Your task to perform on an android device: Go to internet settings Image 0: 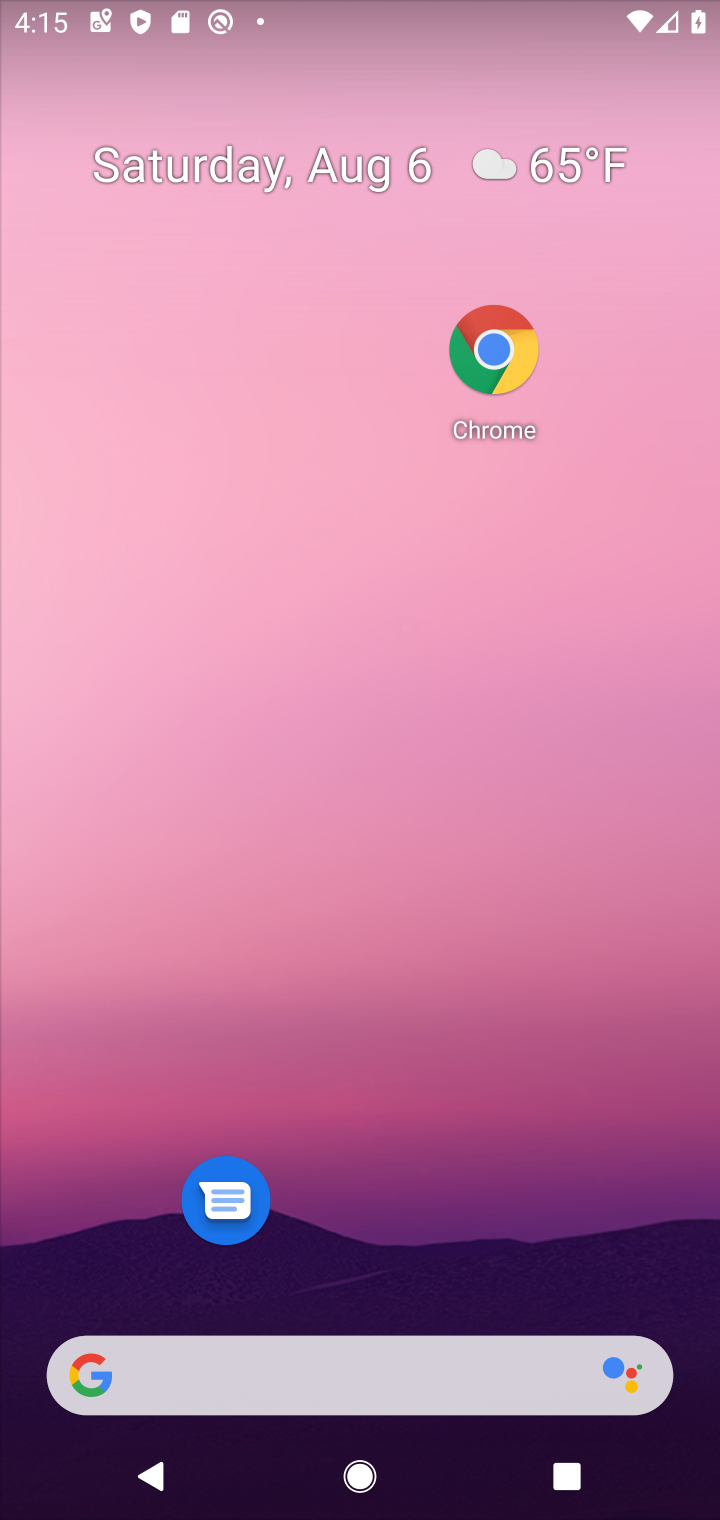
Step 0: drag from (399, 1168) to (391, 546)
Your task to perform on an android device: Go to internet settings Image 1: 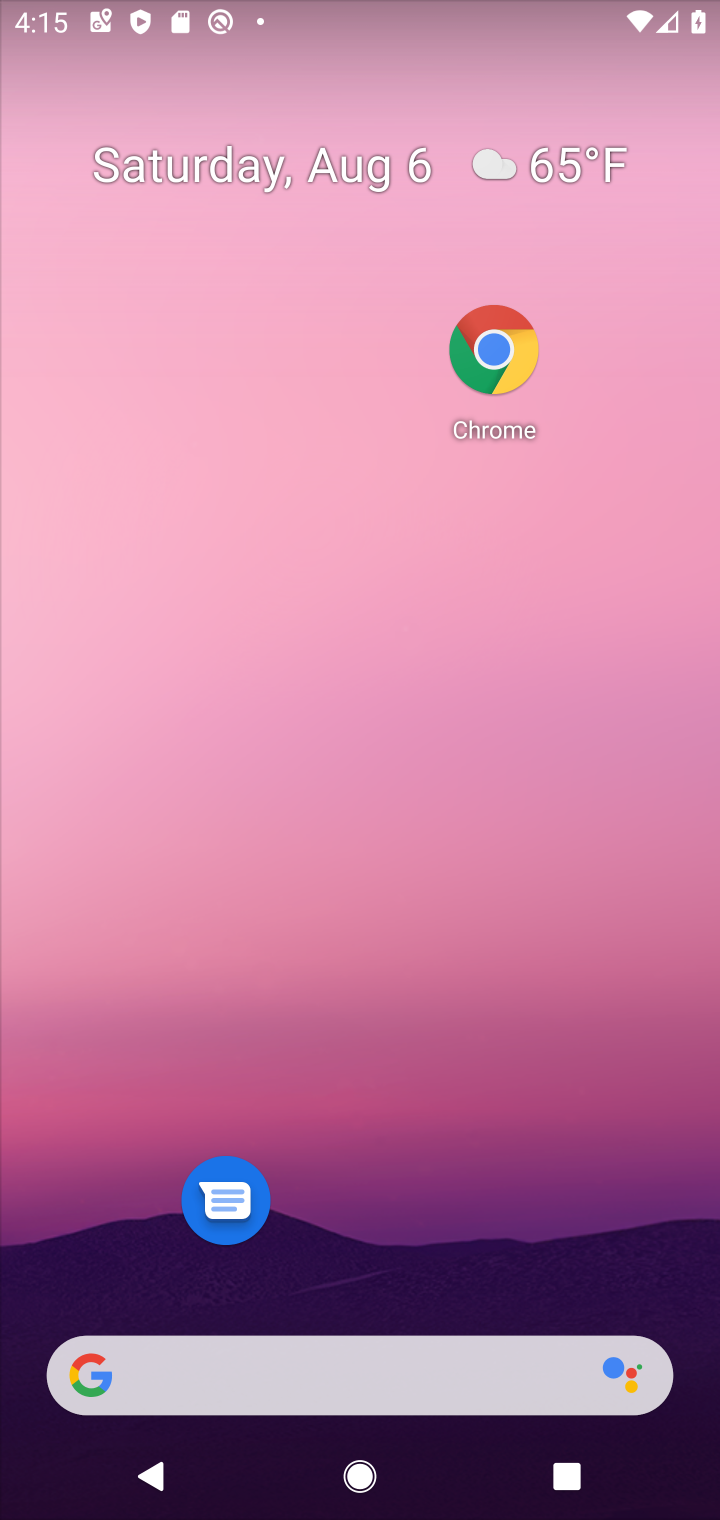
Step 1: drag from (440, 1167) to (419, 306)
Your task to perform on an android device: Go to internet settings Image 2: 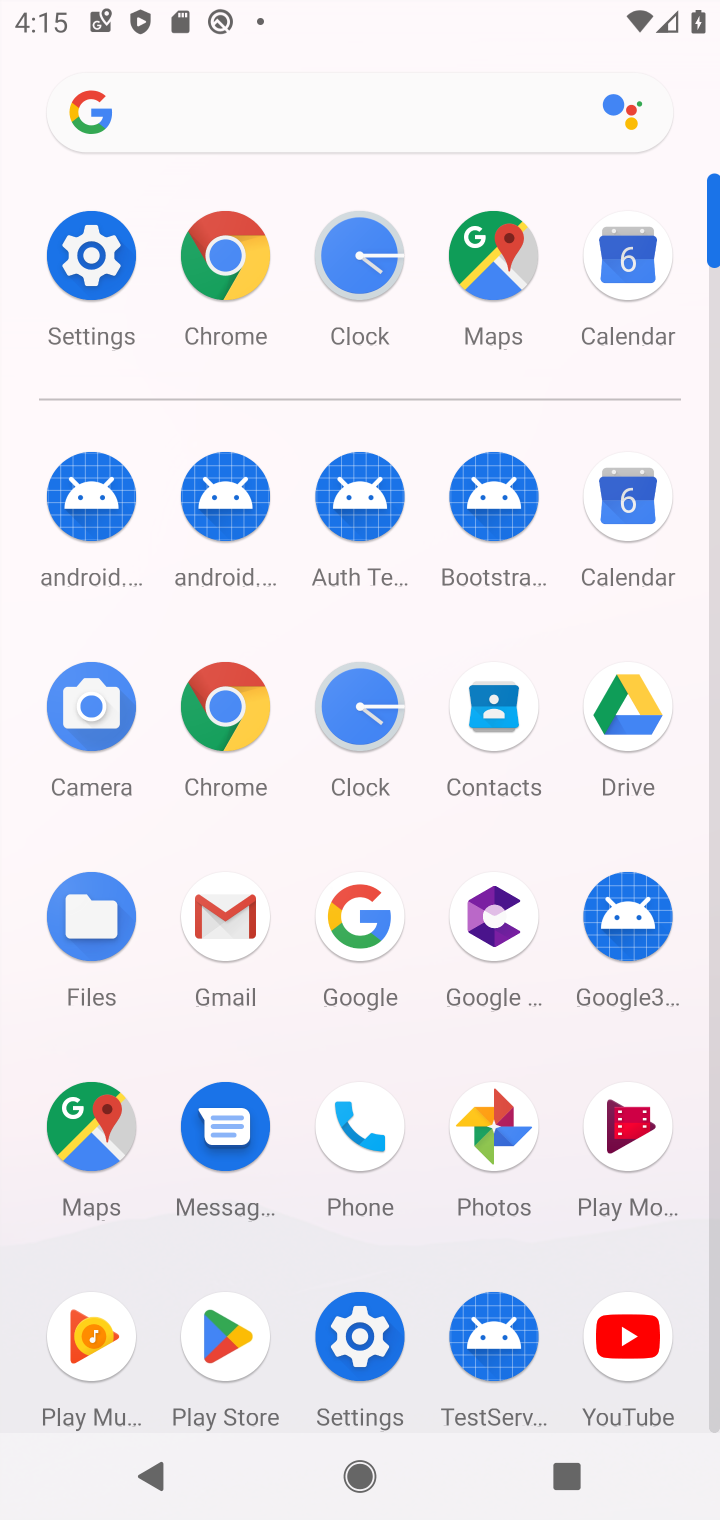
Step 2: click (346, 1340)
Your task to perform on an android device: Go to internet settings Image 3: 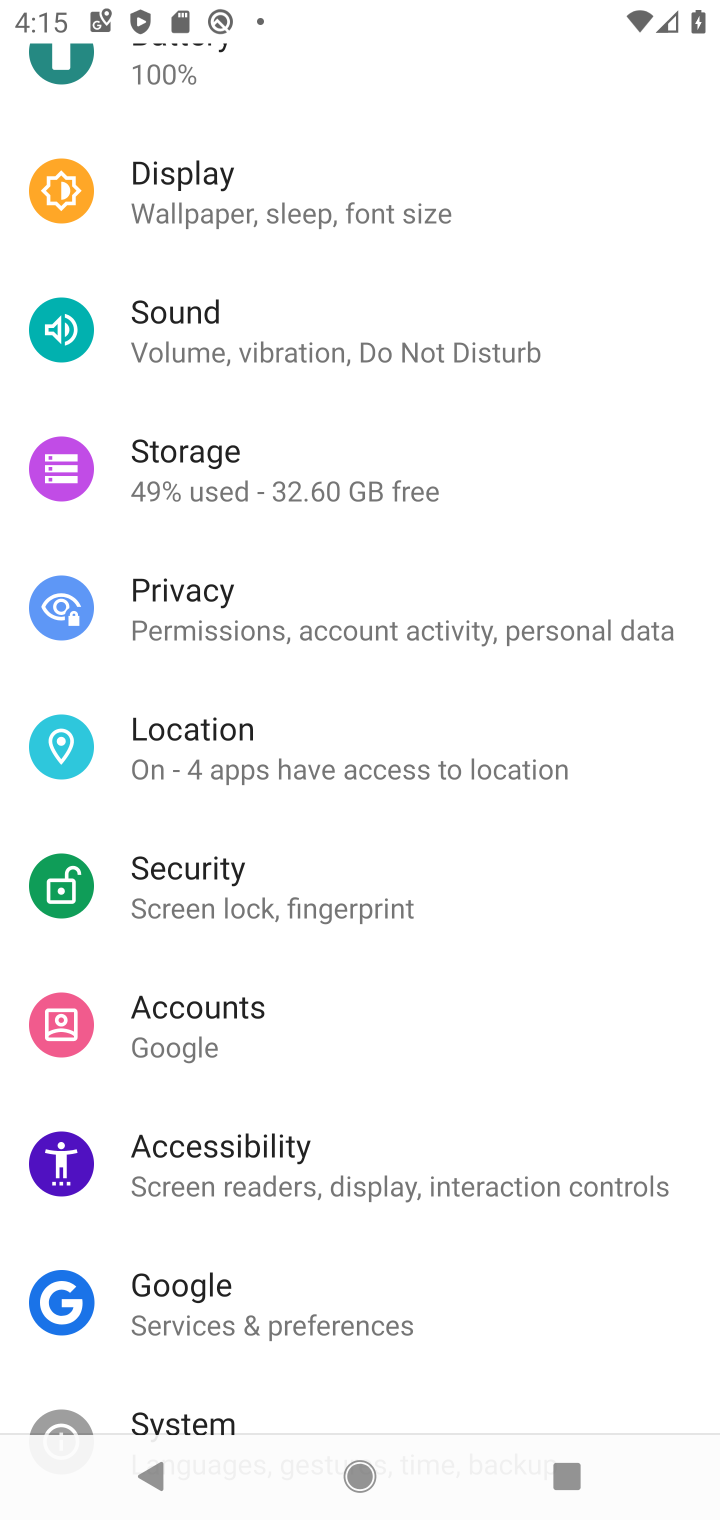
Step 3: drag from (215, 179) to (314, 996)
Your task to perform on an android device: Go to internet settings Image 4: 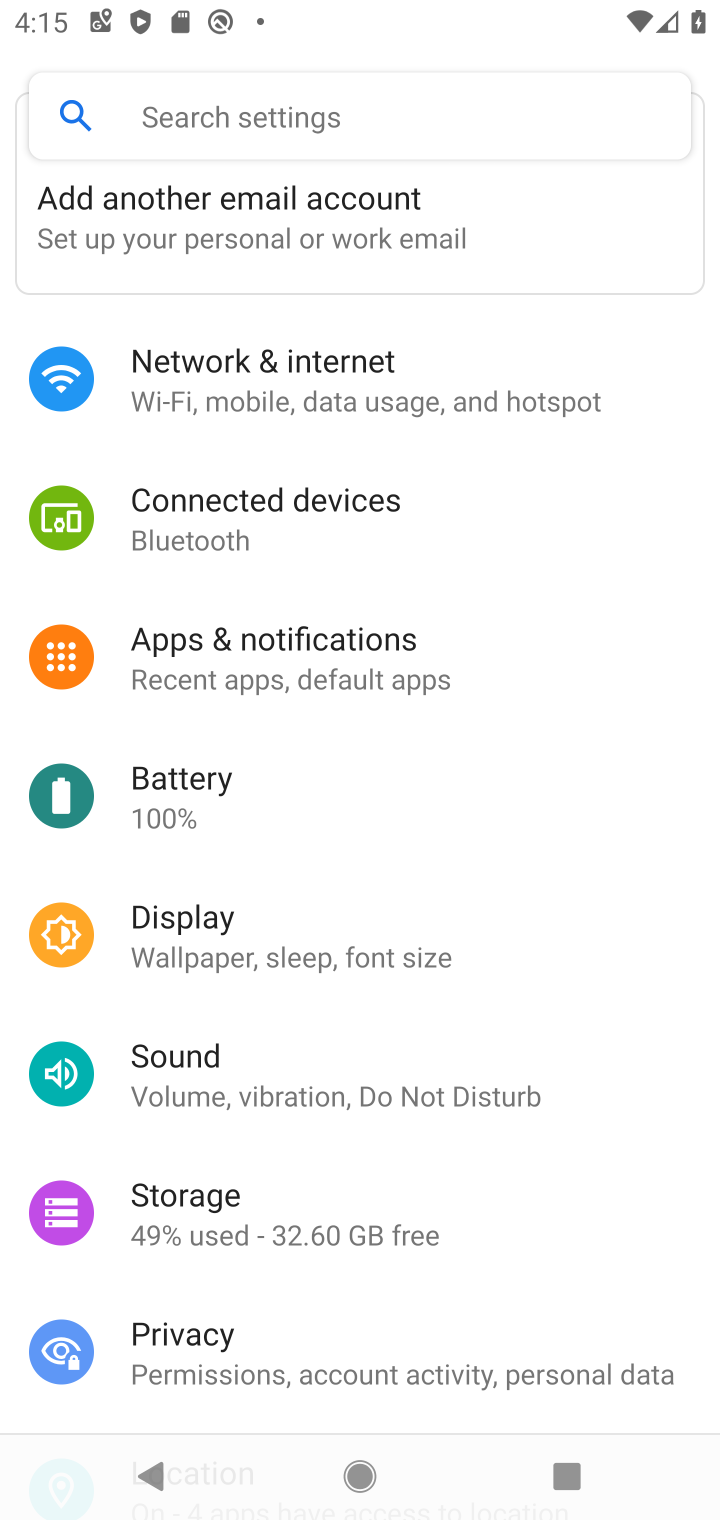
Step 4: click (275, 370)
Your task to perform on an android device: Go to internet settings Image 5: 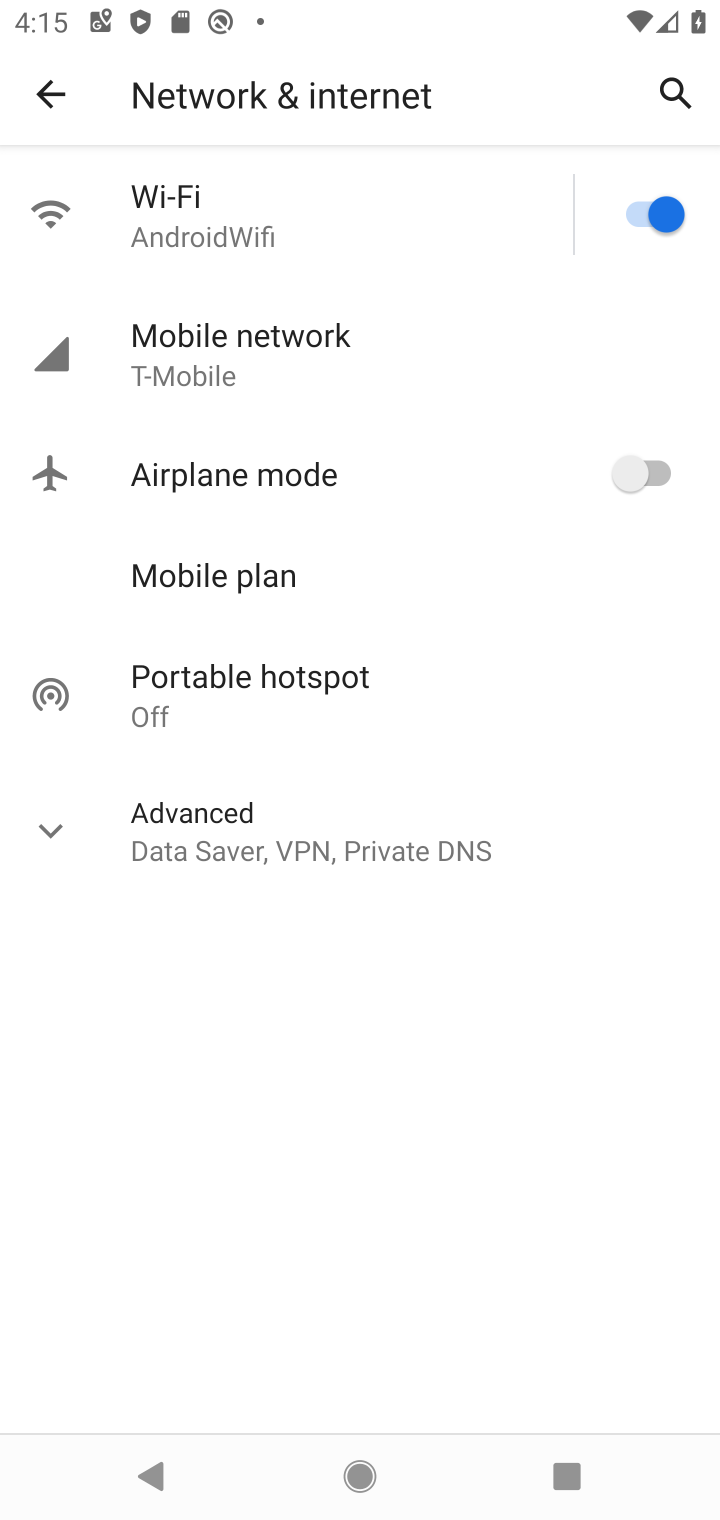
Step 5: click (285, 864)
Your task to perform on an android device: Go to internet settings Image 6: 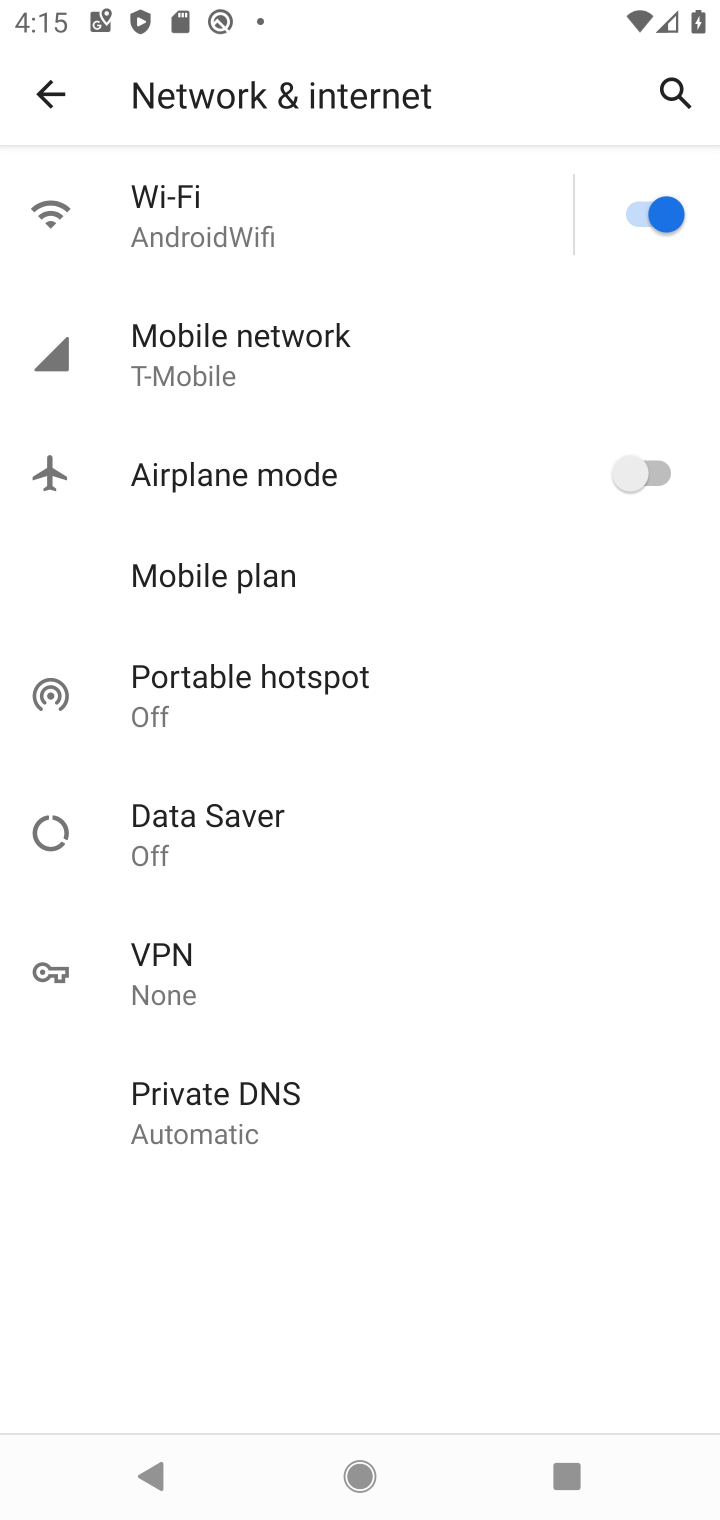
Step 6: task complete